Your task to perform on an android device: Go to eBay Image 0: 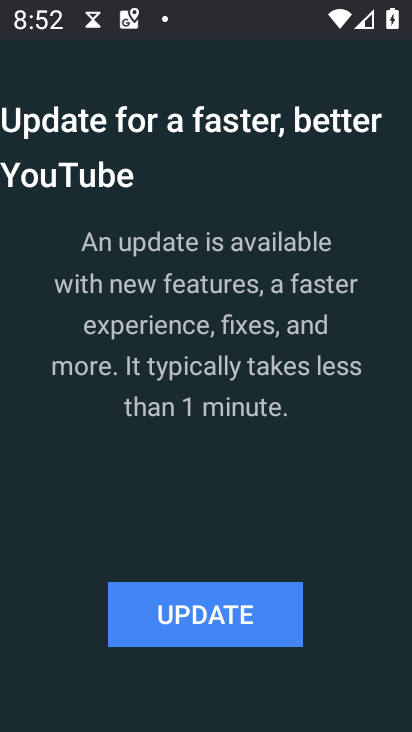
Step 0: press home button
Your task to perform on an android device: Go to eBay Image 1: 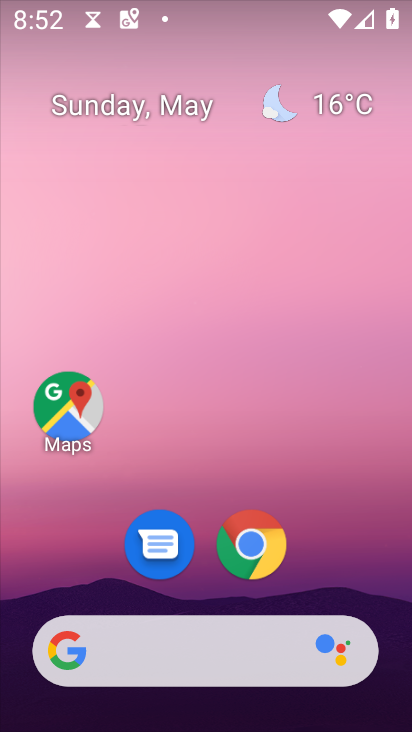
Step 1: click (247, 540)
Your task to perform on an android device: Go to eBay Image 2: 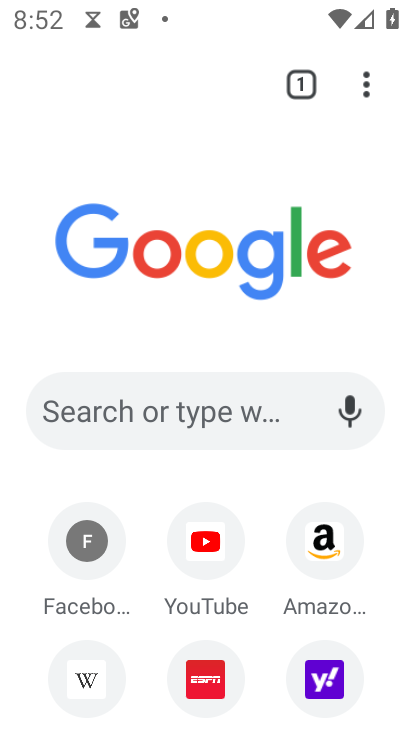
Step 2: drag from (272, 616) to (268, 327)
Your task to perform on an android device: Go to eBay Image 3: 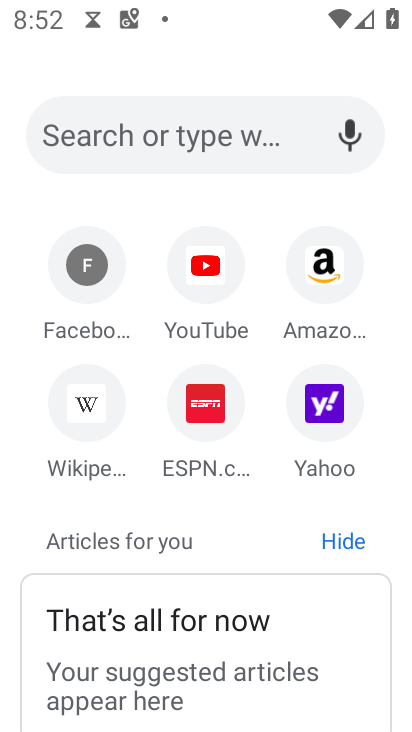
Step 3: drag from (221, 384) to (89, 730)
Your task to perform on an android device: Go to eBay Image 4: 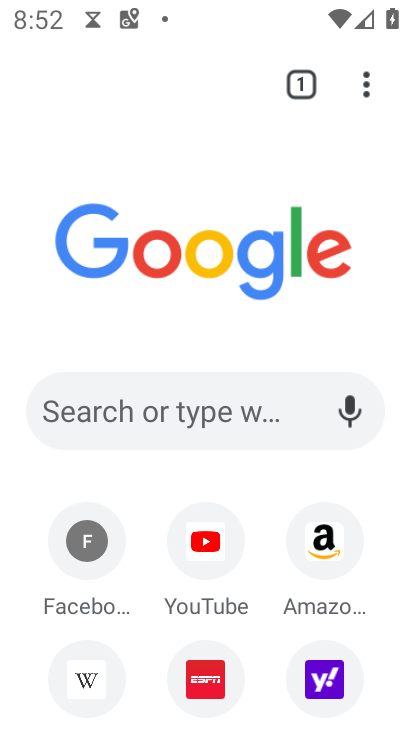
Step 4: click (214, 417)
Your task to perform on an android device: Go to eBay Image 5: 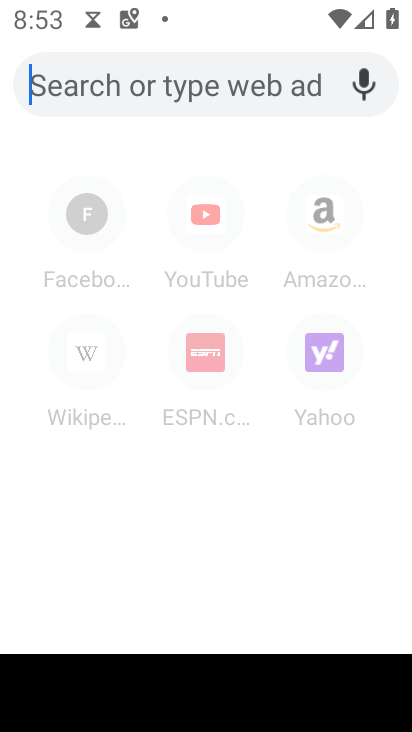
Step 5: click (230, 89)
Your task to perform on an android device: Go to eBay Image 6: 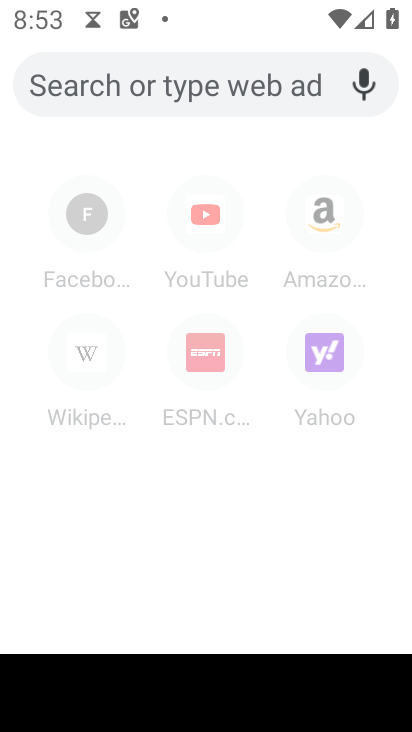
Step 6: type "www.ebay.com"
Your task to perform on an android device: Go to eBay Image 7: 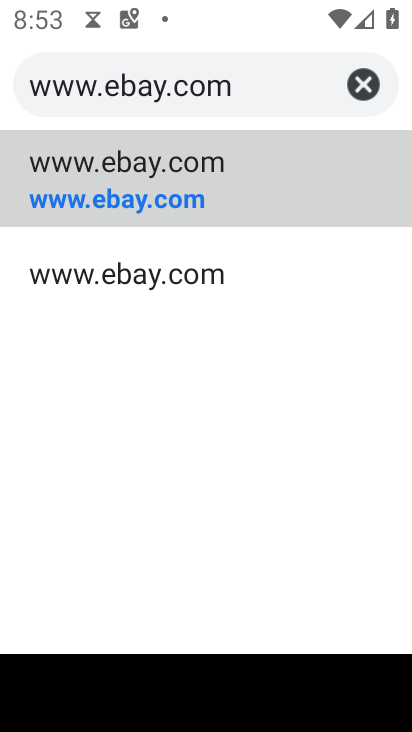
Step 7: click (148, 203)
Your task to perform on an android device: Go to eBay Image 8: 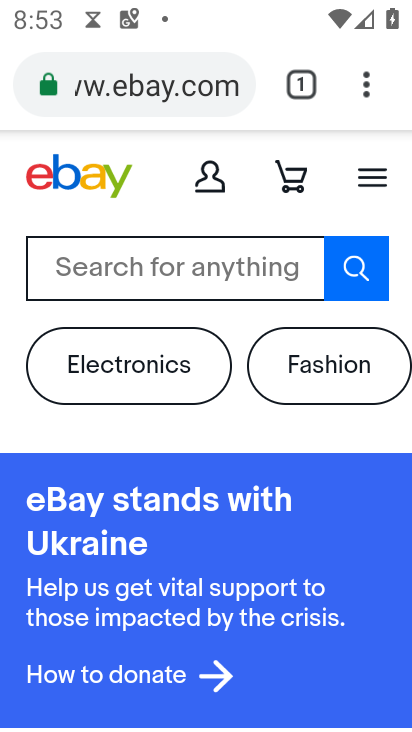
Step 8: task complete